Your task to perform on an android device: clear history in the chrome app Image 0: 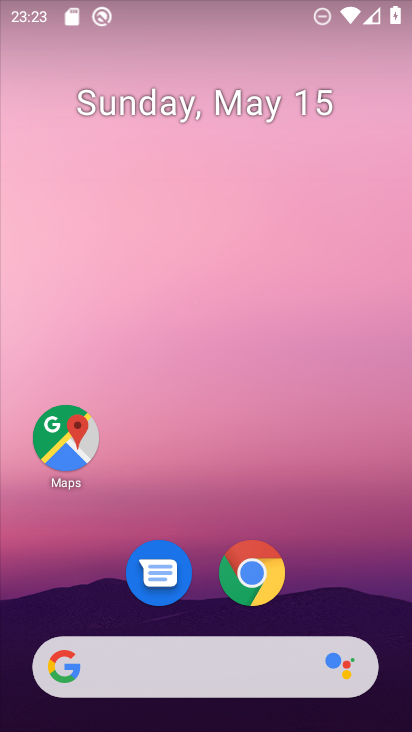
Step 0: press home button
Your task to perform on an android device: clear history in the chrome app Image 1: 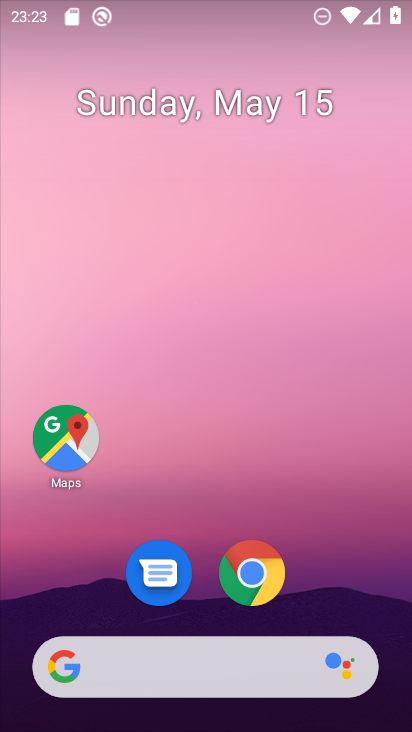
Step 1: click (234, 585)
Your task to perform on an android device: clear history in the chrome app Image 2: 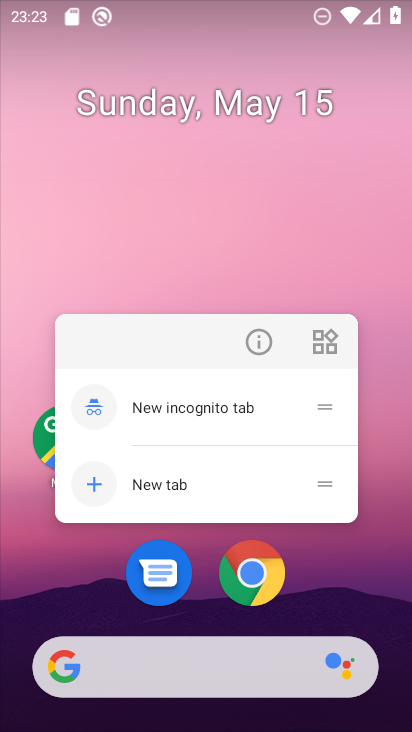
Step 2: click (234, 585)
Your task to perform on an android device: clear history in the chrome app Image 3: 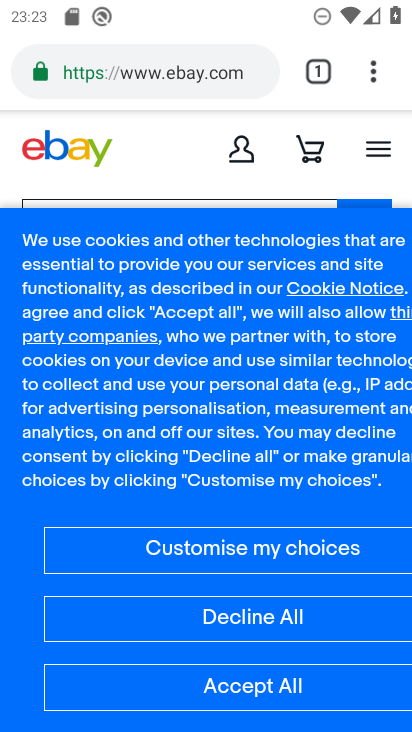
Step 3: click (234, 585)
Your task to perform on an android device: clear history in the chrome app Image 4: 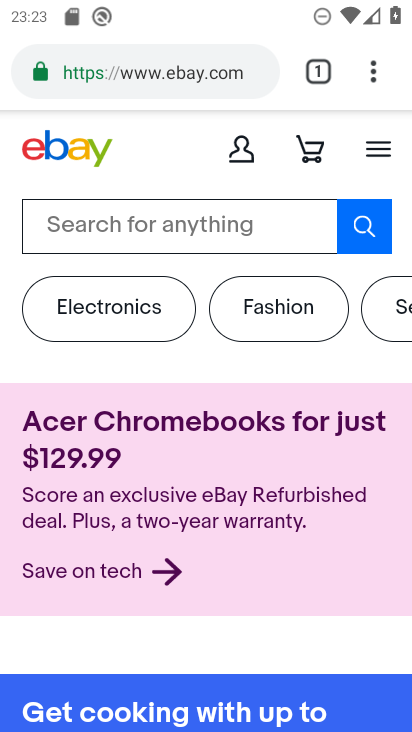
Step 4: click (375, 69)
Your task to perform on an android device: clear history in the chrome app Image 5: 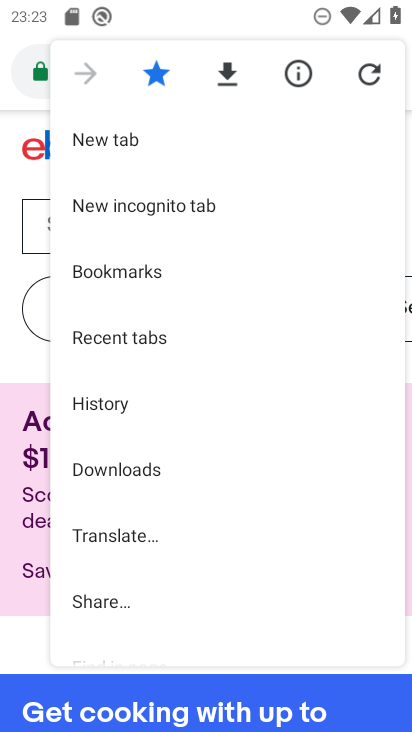
Step 5: drag from (270, 524) to (239, 231)
Your task to perform on an android device: clear history in the chrome app Image 6: 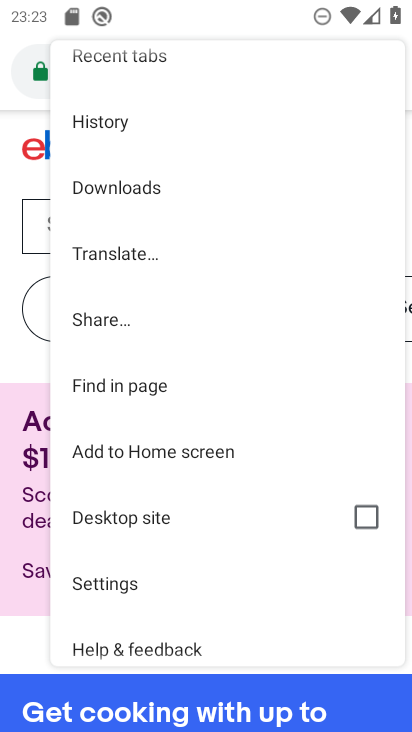
Step 6: click (124, 134)
Your task to perform on an android device: clear history in the chrome app Image 7: 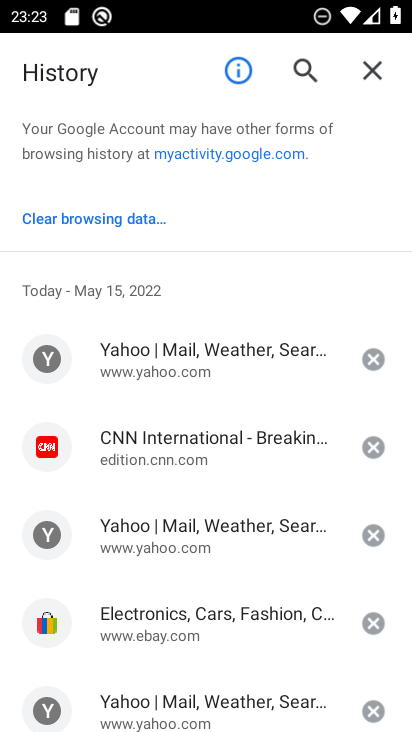
Step 7: click (74, 221)
Your task to perform on an android device: clear history in the chrome app Image 8: 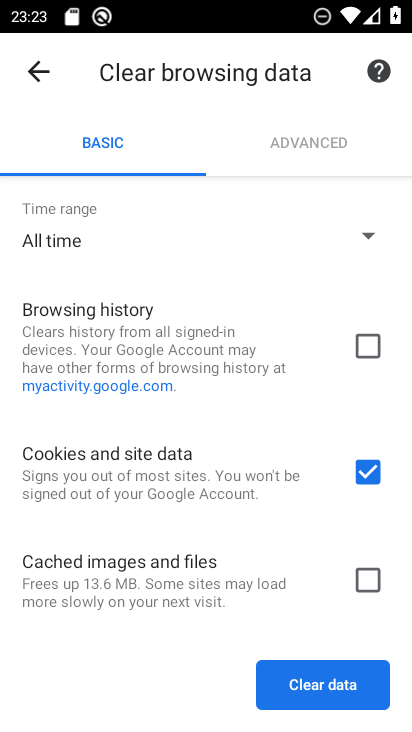
Step 8: click (356, 338)
Your task to perform on an android device: clear history in the chrome app Image 9: 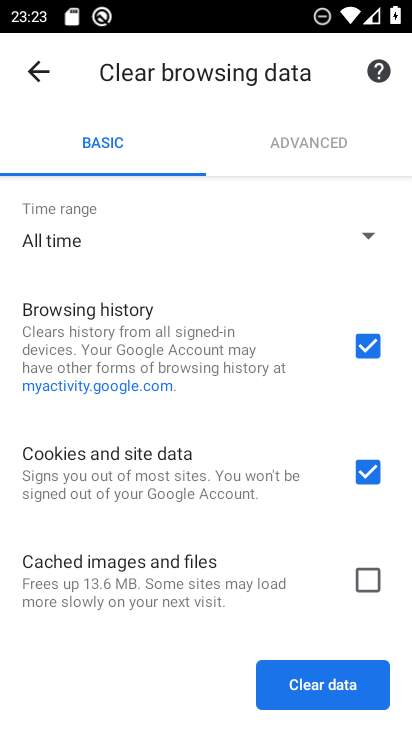
Step 9: click (342, 700)
Your task to perform on an android device: clear history in the chrome app Image 10: 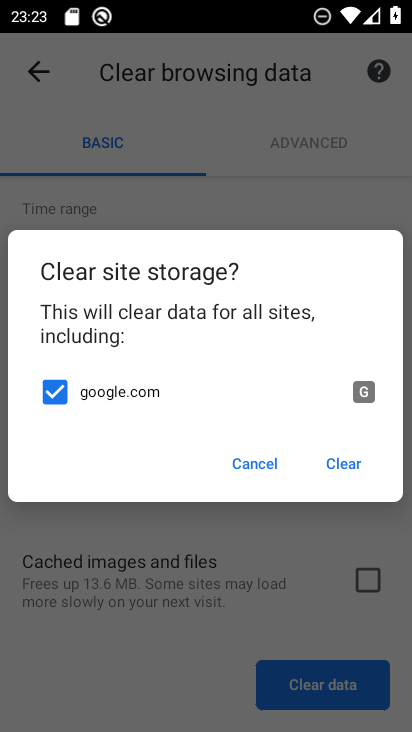
Step 10: click (353, 459)
Your task to perform on an android device: clear history in the chrome app Image 11: 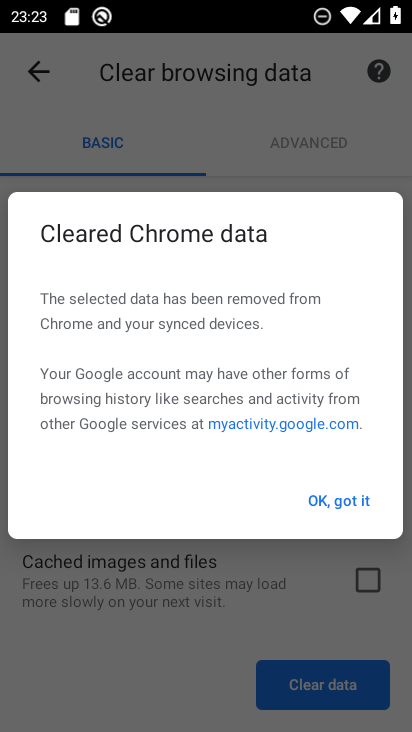
Step 11: click (357, 491)
Your task to perform on an android device: clear history in the chrome app Image 12: 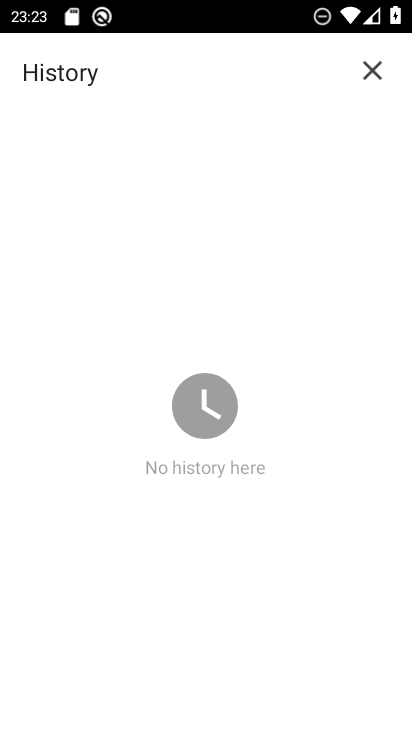
Step 12: task complete